Your task to perform on an android device: Search for Italian restaurants on Maps Image 0: 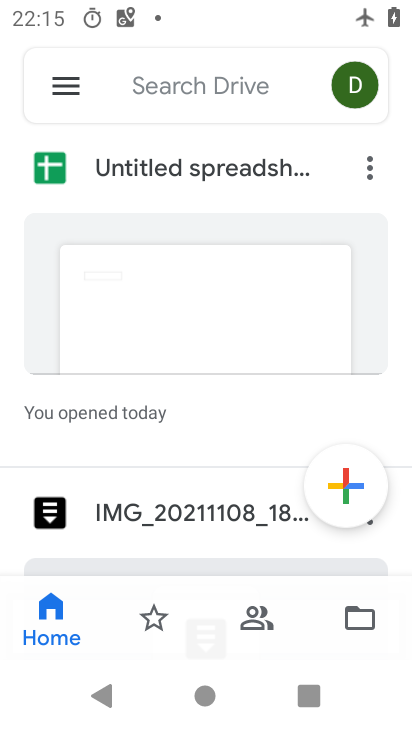
Step 0: press home button
Your task to perform on an android device: Search for Italian restaurants on Maps Image 1: 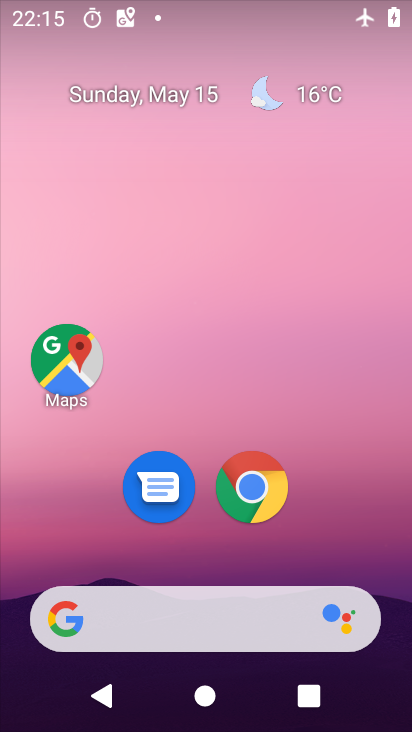
Step 1: drag from (408, 332) to (406, 257)
Your task to perform on an android device: Search for Italian restaurants on Maps Image 2: 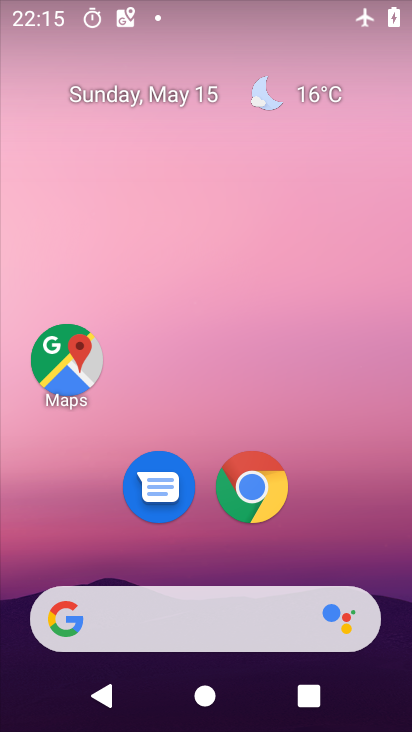
Step 2: drag from (394, 649) to (326, 141)
Your task to perform on an android device: Search for Italian restaurants on Maps Image 3: 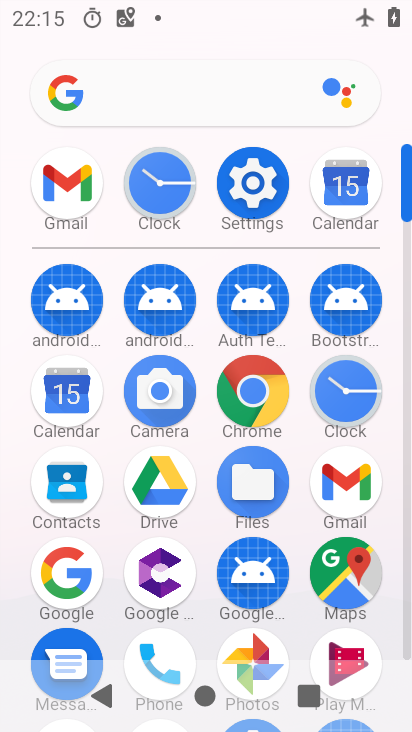
Step 3: click (350, 577)
Your task to perform on an android device: Search for Italian restaurants on Maps Image 4: 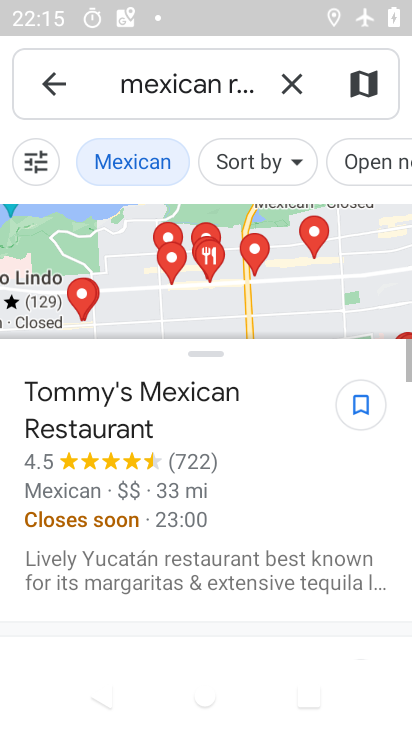
Step 4: click (284, 87)
Your task to perform on an android device: Search for Italian restaurants on Maps Image 5: 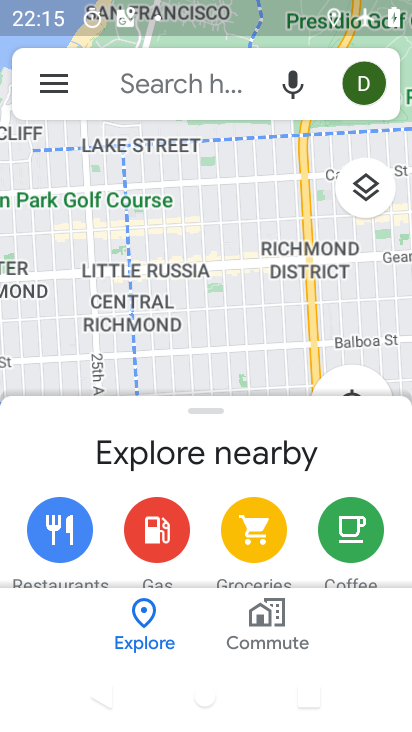
Step 5: click (132, 85)
Your task to perform on an android device: Search for Italian restaurants on Maps Image 6: 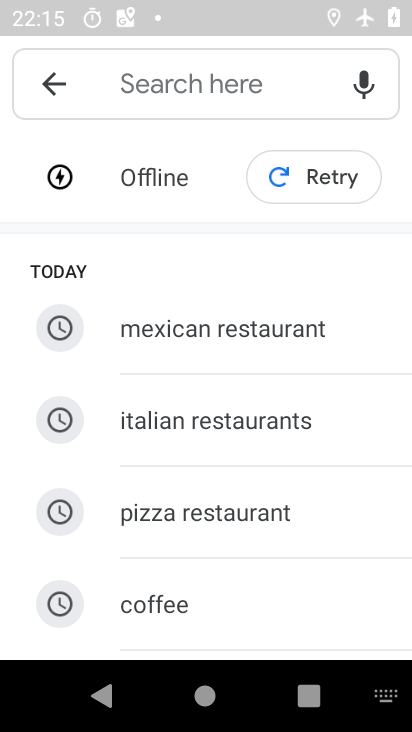
Step 6: type " Italian restaurants"
Your task to perform on an android device: Search for Italian restaurants on Maps Image 7: 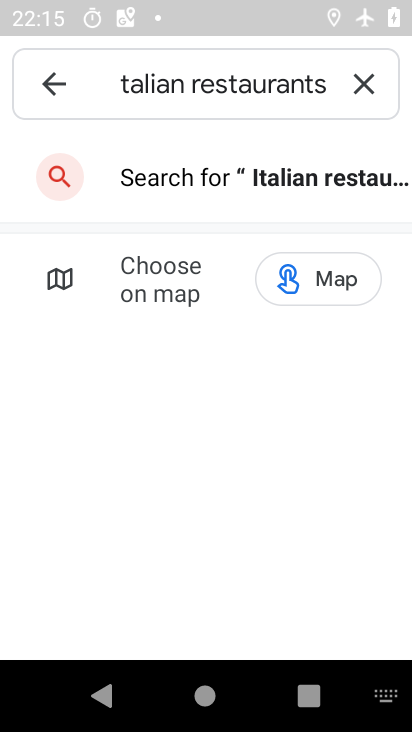
Step 7: click (279, 184)
Your task to perform on an android device: Search for Italian restaurants on Maps Image 8: 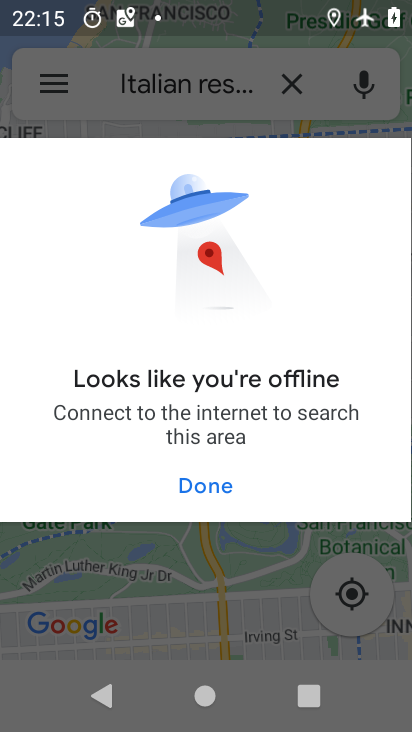
Step 8: task complete